Your task to perform on an android device: Is it going to rain today? Image 0: 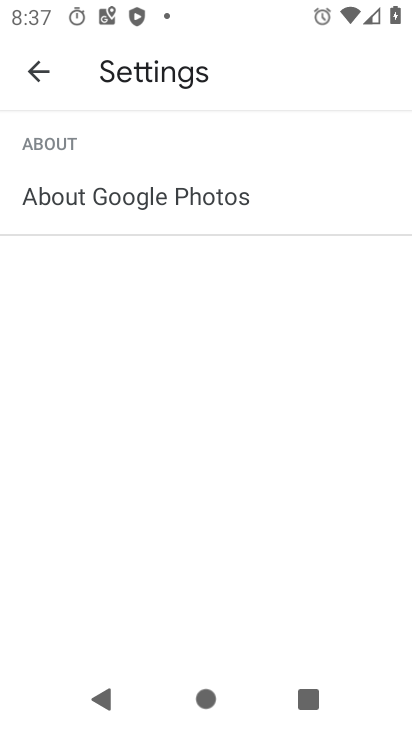
Step 0: press back button
Your task to perform on an android device: Is it going to rain today? Image 1: 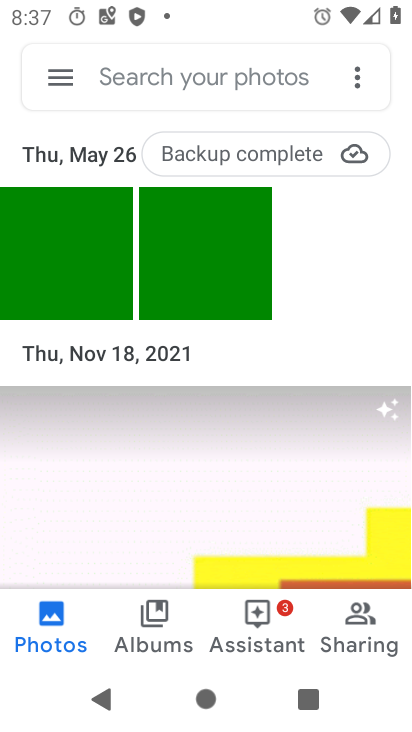
Step 1: press home button
Your task to perform on an android device: Is it going to rain today? Image 2: 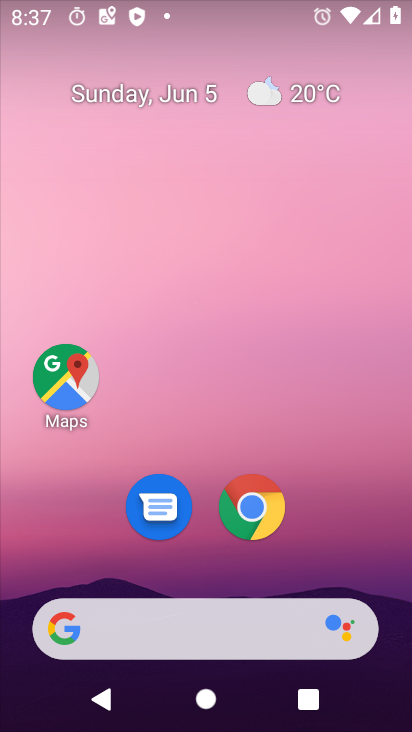
Step 2: drag from (343, 485) to (308, 11)
Your task to perform on an android device: Is it going to rain today? Image 3: 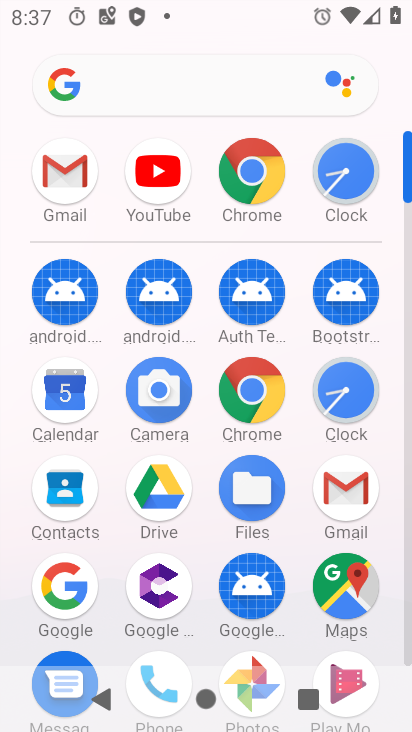
Step 3: click (248, 167)
Your task to perform on an android device: Is it going to rain today? Image 4: 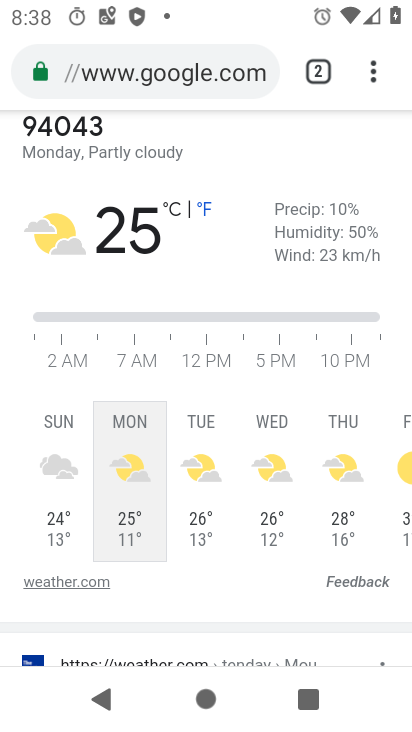
Step 4: click (146, 65)
Your task to perform on an android device: Is it going to rain today? Image 5: 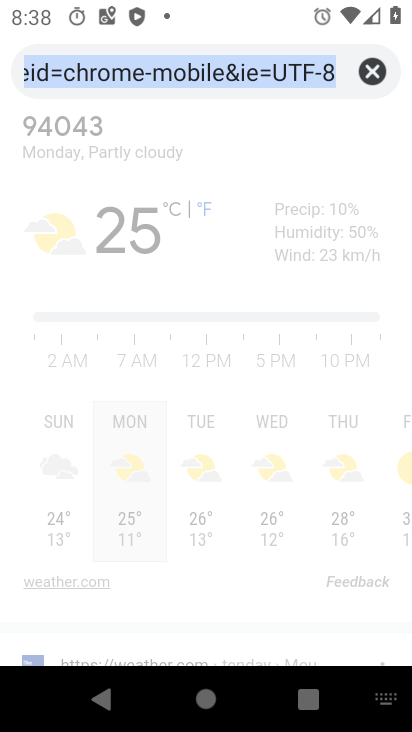
Step 5: click (366, 68)
Your task to perform on an android device: Is it going to rain today? Image 6: 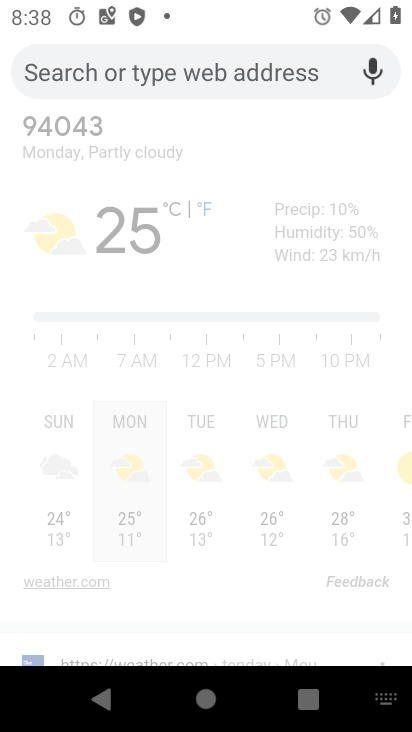
Step 6: type "Is it going to rain today?"
Your task to perform on an android device: Is it going to rain today? Image 7: 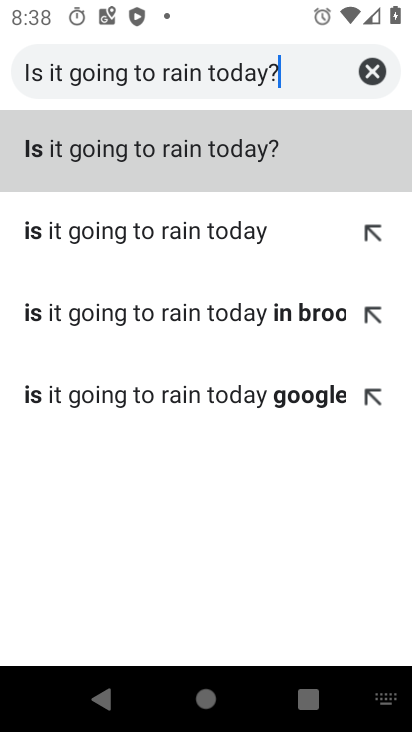
Step 7: type ""
Your task to perform on an android device: Is it going to rain today? Image 8: 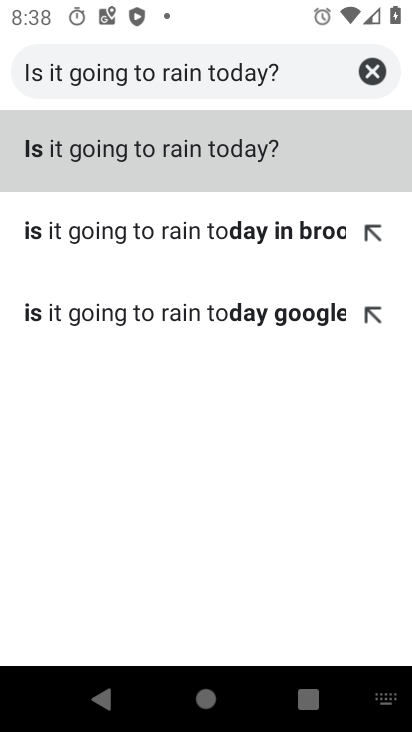
Step 8: click (170, 145)
Your task to perform on an android device: Is it going to rain today? Image 9: 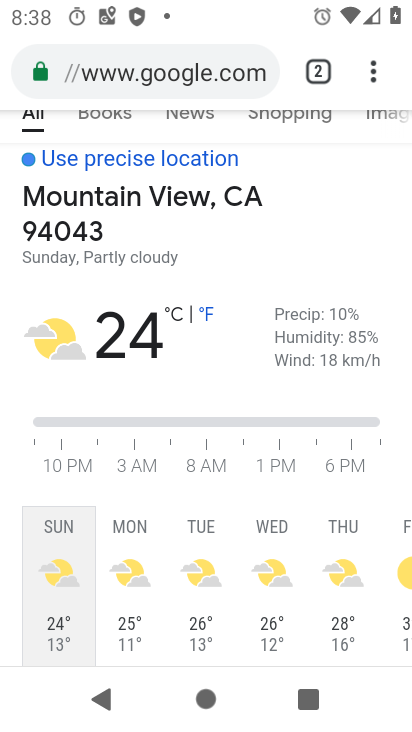
Step 9: task complete